Your task to perform on an android device: Turn off the flashlight Image 0: 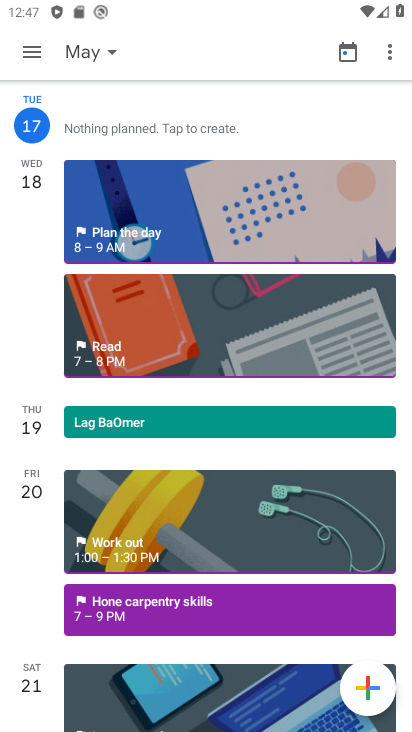
Step 0: press back button
Your task to perform on an android device: Turn off the flashlight Image 1: 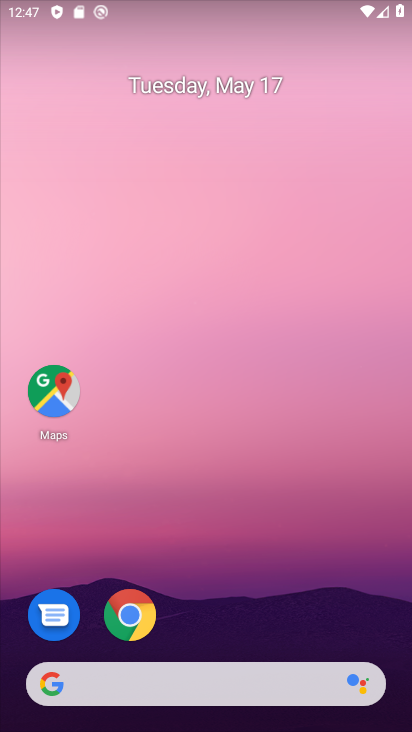
Step 1: drag from (272, 622) to (143, 237)
Your task to perform on an android device: Turn off the flashlight Image 2: 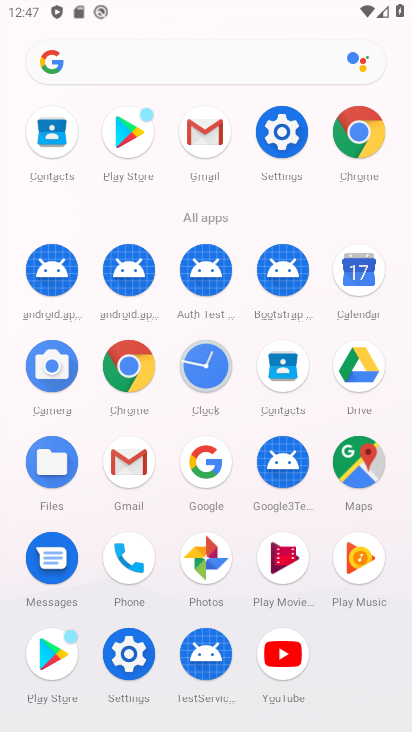
Step 2: click (280, 128)
Your task to perform on an android device: Turn off the flashlight Image 3: 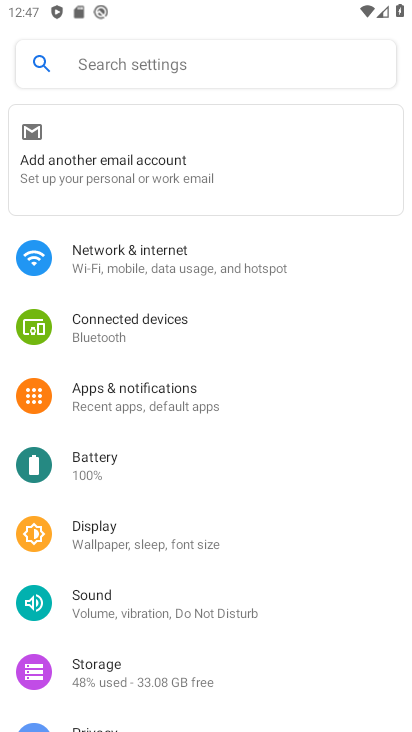
Step 3: click (164, 534)
Your task to perform on an android device: Turn off the flashlight Image 4: 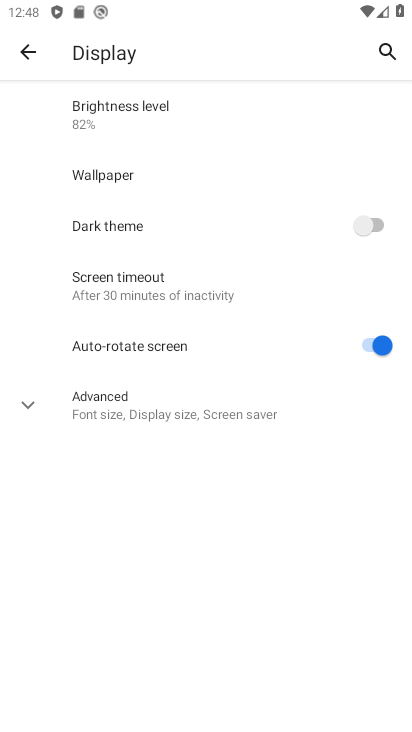
Step 4: click (116, 406)
Your task to perform on an android device: Turn off the flashlight Image 5: 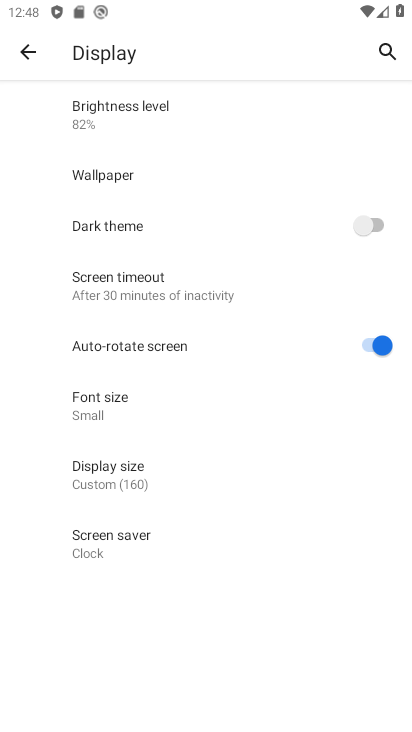
Step 5: press back button
Your task to perform on an android device: Turn off the flashlight Image 6: 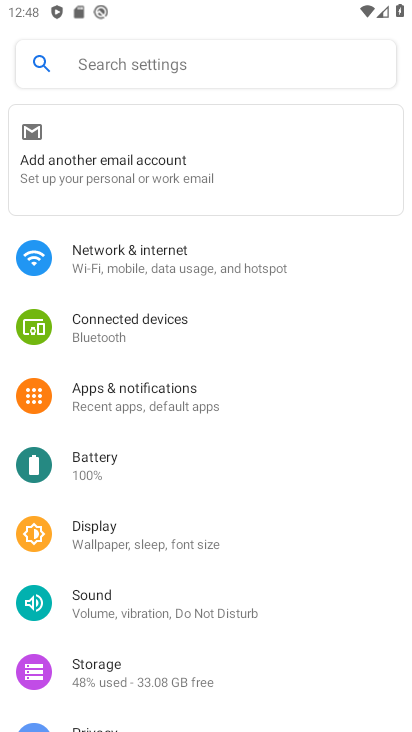
Step 6: drag from (151, 561) to (171, 490)
Your task to perform on an android device: Turn off the flashlight Image 7: 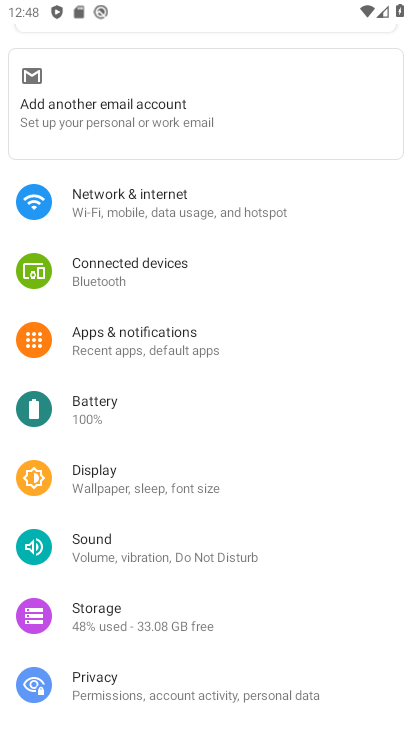
Step 7: drag from (173, 537) to (230, 451)
Your task to perform on an android device: Turn off the flashlight Image 8: 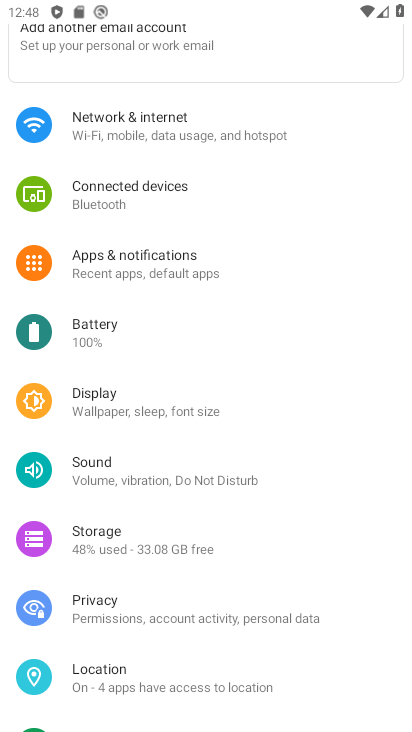
Step 8: drag from (141, 572) to (212, 469)
Your task to perform on an android device: Turn off the flashlight Image 9: 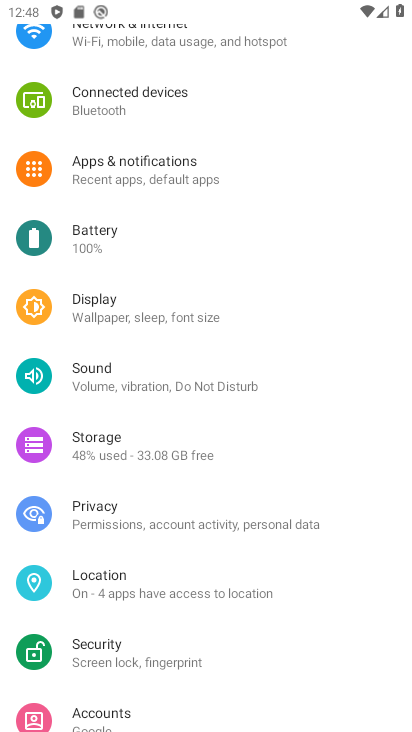
Step 9: drag from (142, 620) to (194, 519)
Your task to perform on an android device: Turn off the flashlight Image 10: 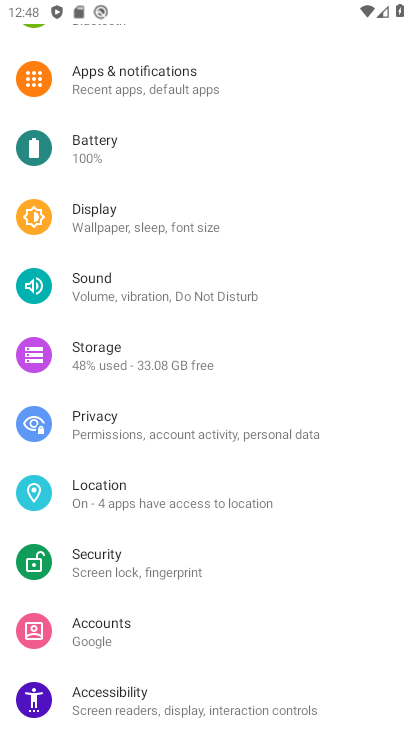
Step 10: click (177, 549)
Your task to perform on an android device: Turn off the flashlight Image 11: 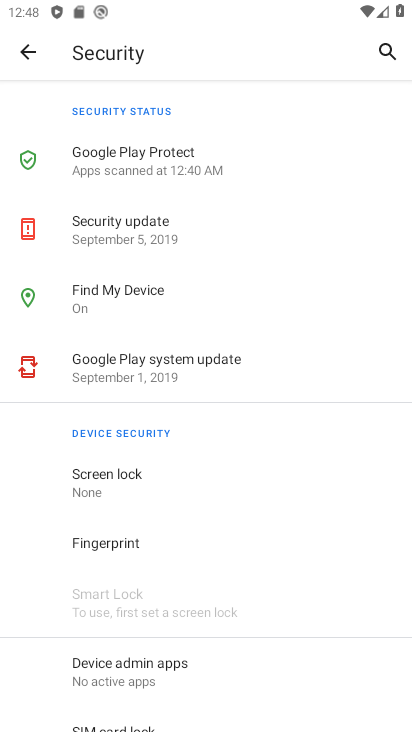
Step 11: drag from (189, 526) to (228, 446)
Your task to perform on an android device: Turn off the flashlight Image 12: 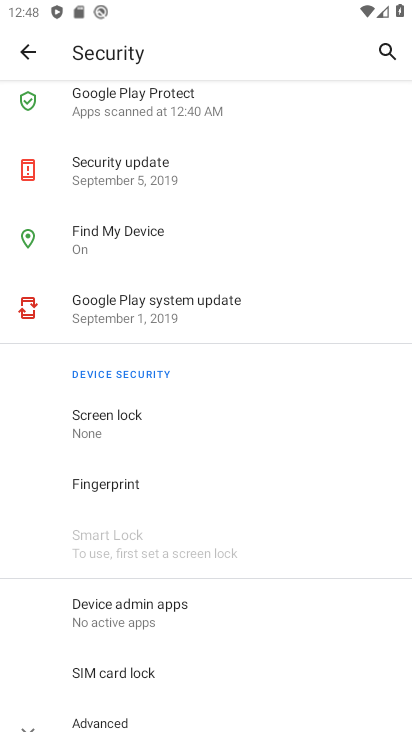
Step 12: drag from (173, 618) to (219, 520)
Your task to perform on an android device: Turn off the flashlight Image 13: 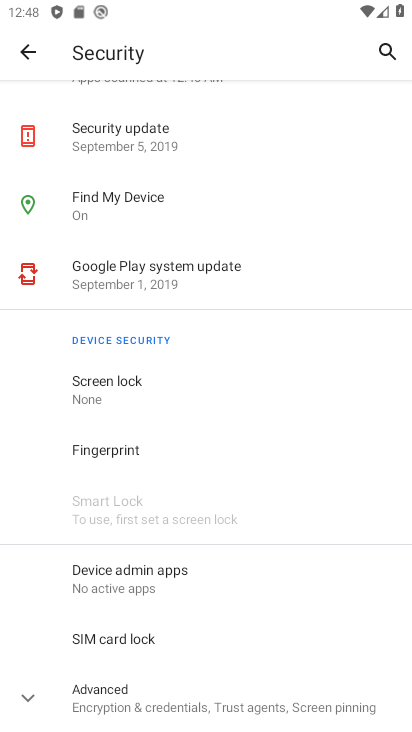
Step 13: click (176, 707)
Your task to perform on an android device: Turn off the flashlight Image 14: 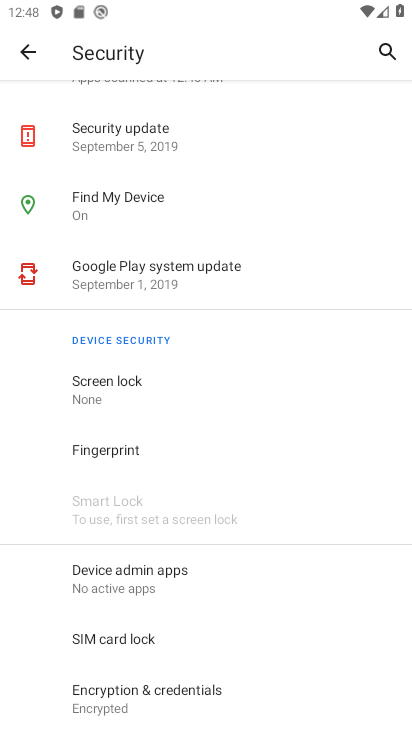
Step 14: drag from (174, 611) to (229, 475)
Your task to perform on an android device: Turn off the flashlight Image 15: 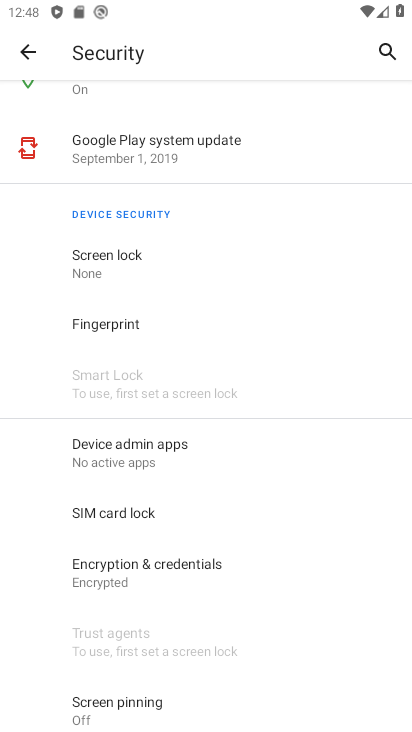
Step 15: drag from (186, 618) to (247, 526)
Your task to perform on an android device: Turn off the flashlight Image 16: 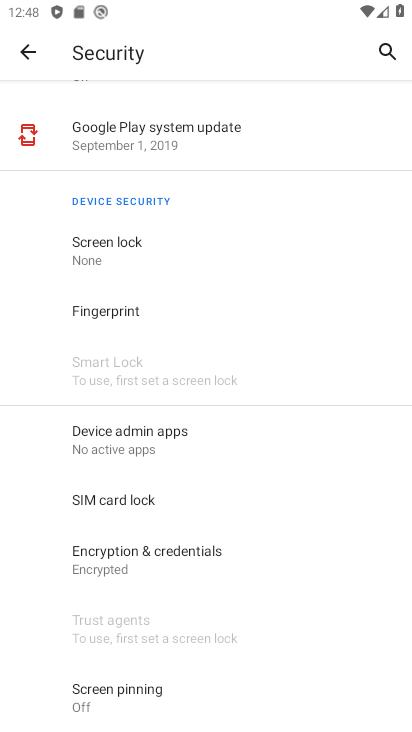
Step 16: press back button
Your task to perform on an android device: Turn off the flashlight Image 17: 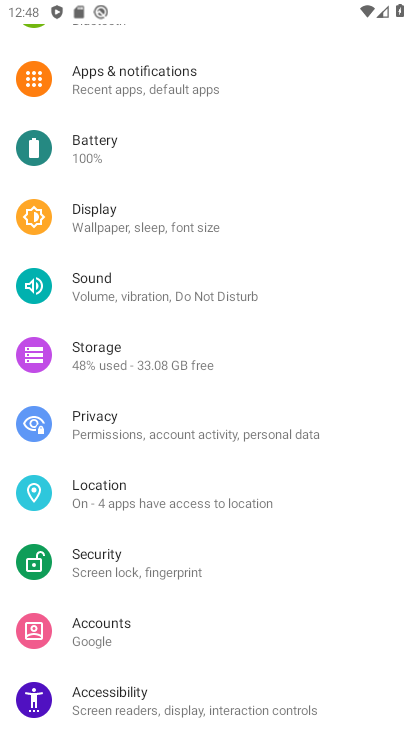
Step 17: drag from (160, 597) to (218, 492)
Your task to perform on an android device: Turn off the flashlight Image 18: 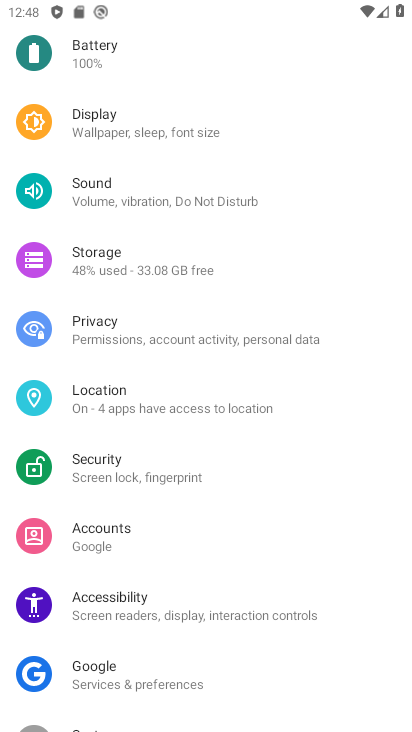
Step 18: click (178, 605)
Your task to perform on an android device: Turn off the flashlight Image 19: 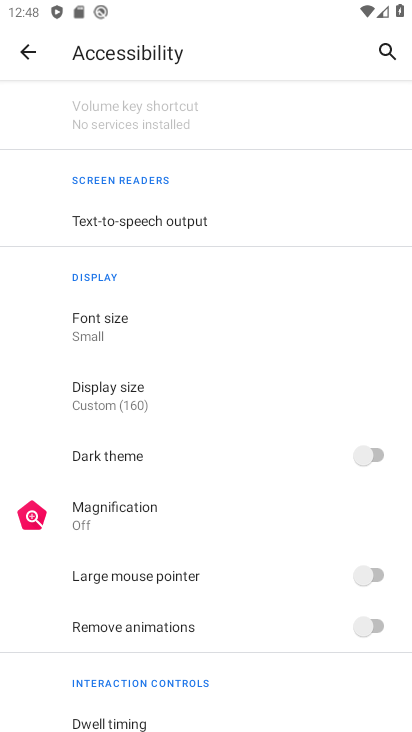
Step 19: task complete